Your task to perform on an android device: set the stopwatch Image 0: 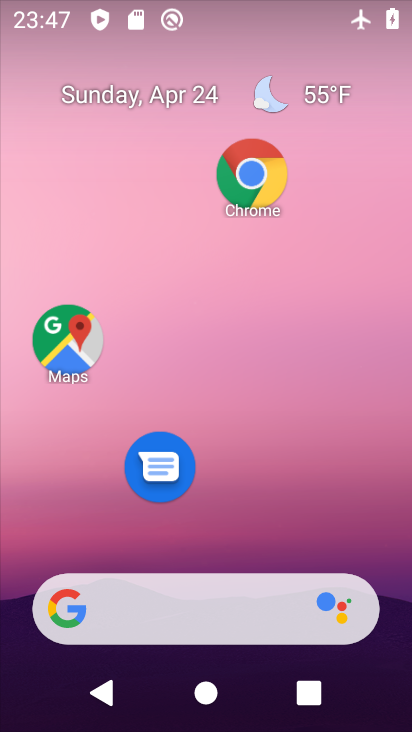
Step 0: drag from (266, 267) to (277, 101)
Your task to perform on an android device: set the stopwatch Image 1: 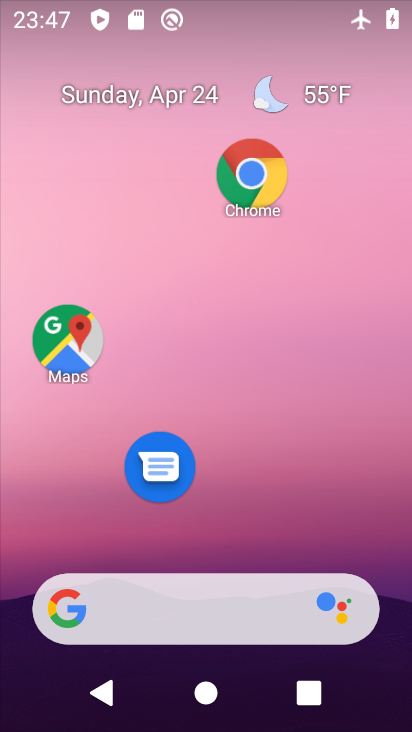
Step 1: drag from (258, 512) to (314, 57)
Your task to perform on an android device: set the stopwatch Image 2: 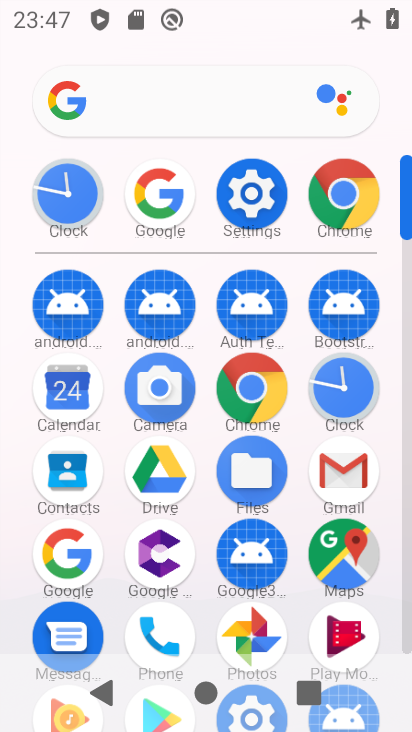
Step 2: click (65, 199)
Your task to perform on an android device: set the stopwatch Image 3: 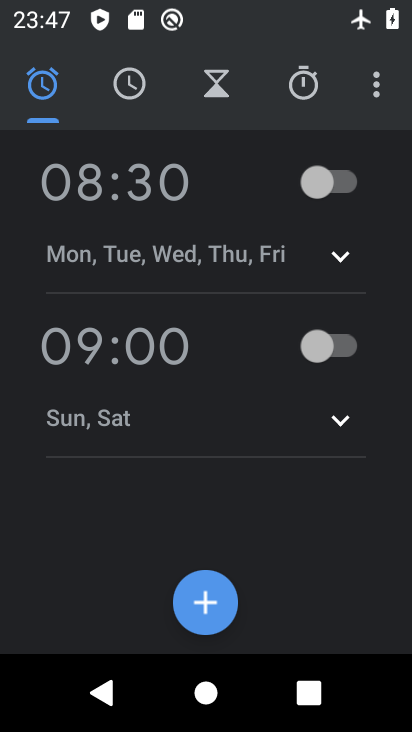
Step 3: click (373, 89)
Your task to perform on an android device: set the stopwatch Image 4: 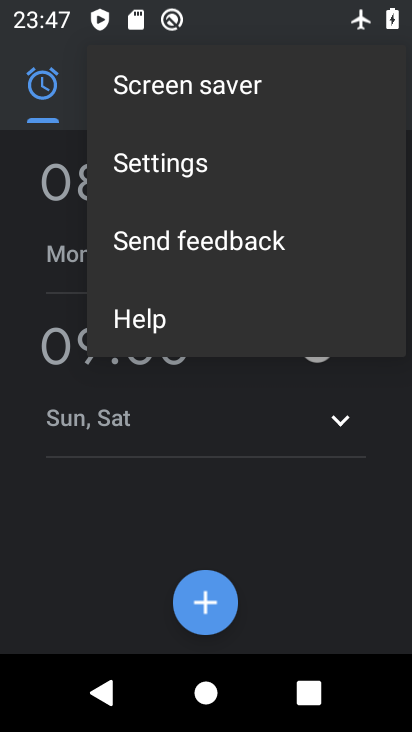
Step 4: click (188, 174)
Your task to perform on an android device: set the stopwatch Image 5: 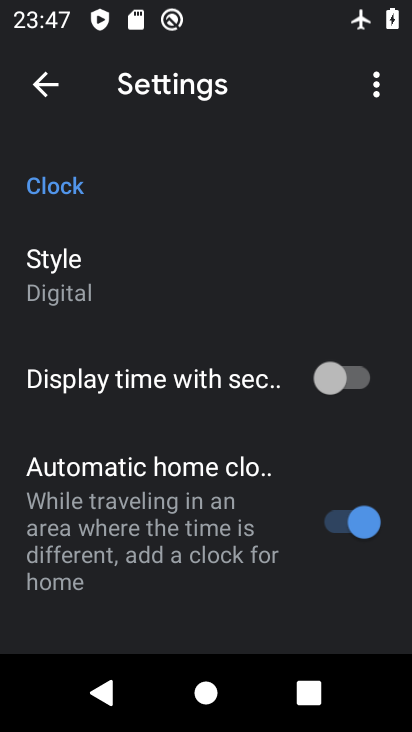
Step 5: press back button
Your task to perform on an android device: set the stopwatch Image 6: 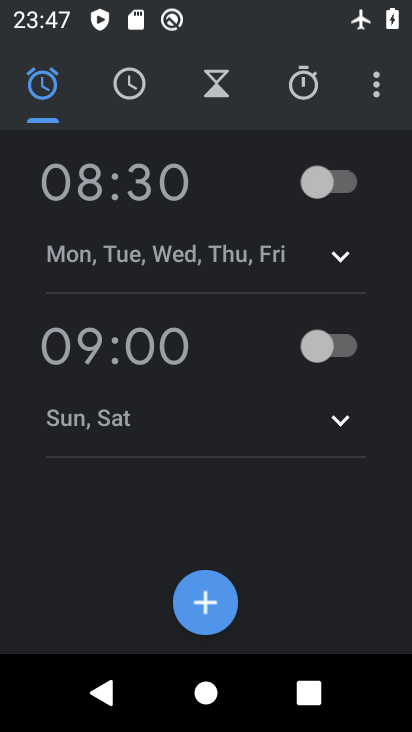
Step 6: click (299, 90)
Your task to perform on an android device: set the stopwatch Image 7: 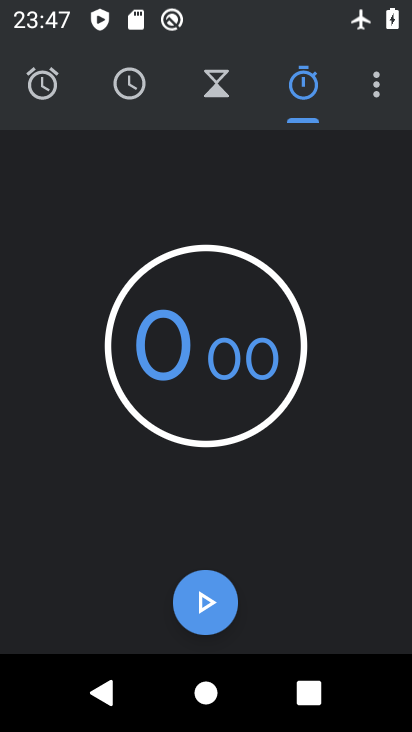
Step 7: click (207, 611)
Your task to perform on an android device: set the stopwatch Image 8: 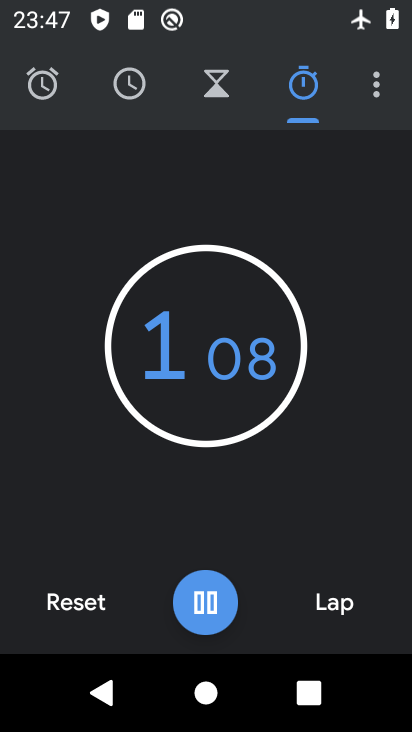
Step 8: click (206, 611)
Your task to perform on an android device: set the stopwatch Image 9: 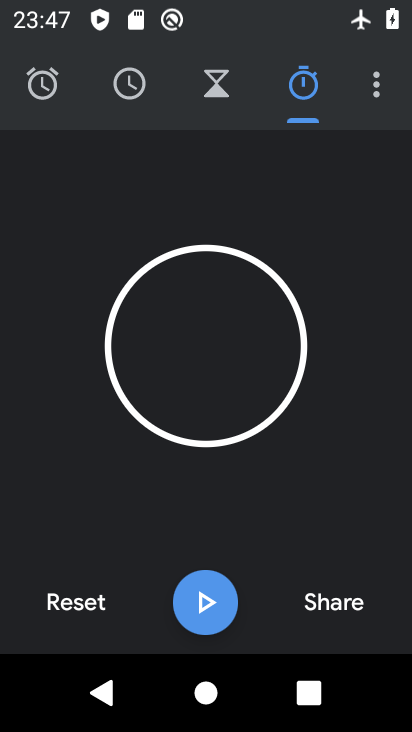
Step 9: task complete